Your task to perform on an android device: set default search engine in the chrome app Image 0: 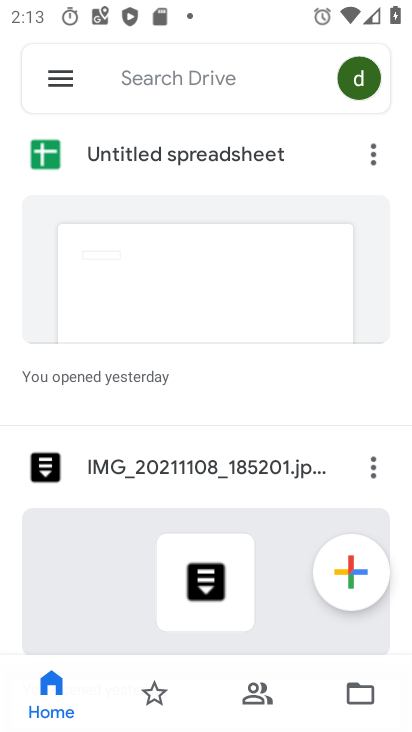
Step 0: press home button
Your task to perform on an android device: set default search engine in the chrome app Image 1: 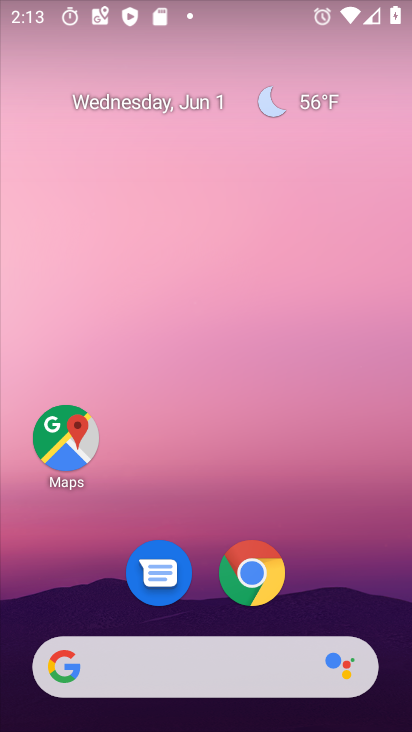
Step 1: drag from (318, 545) to (323, 2)
Your task to perform on an android device: set default search engine in the chrome app Image 2: 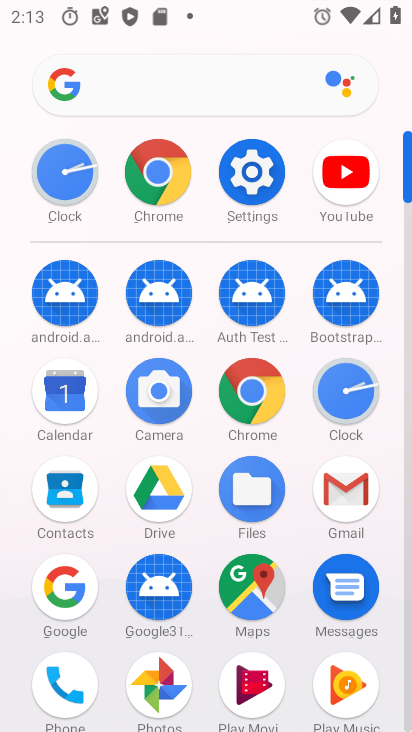
Step 2: click (158, 188)
Your task to perform on an android device: set default search engine in the chrome app Image 3: 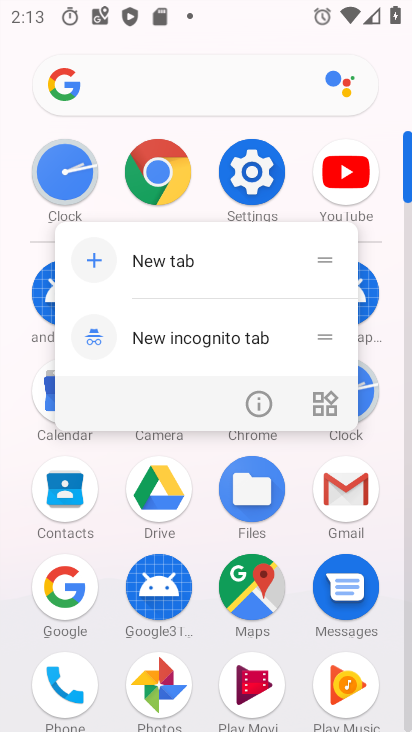
Step 3: click (163, 179)
Your task to perform on an android device: set default search engine in the chrome app Image 4: 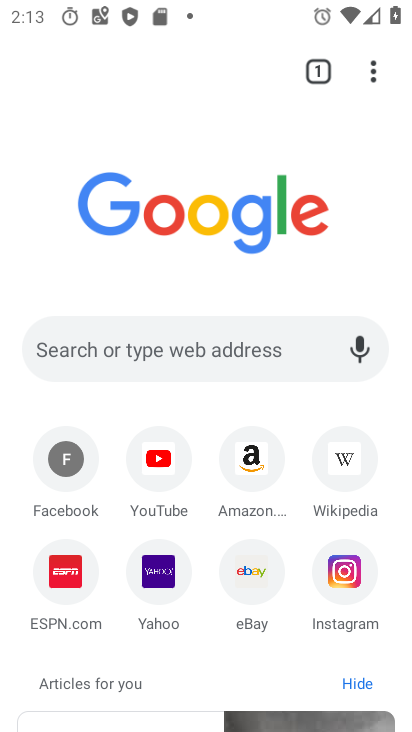
Step 4: drag from (372, 74) to (143, 610)
Your task to perform on an android device: set default search engine in the chrome app Image 5: 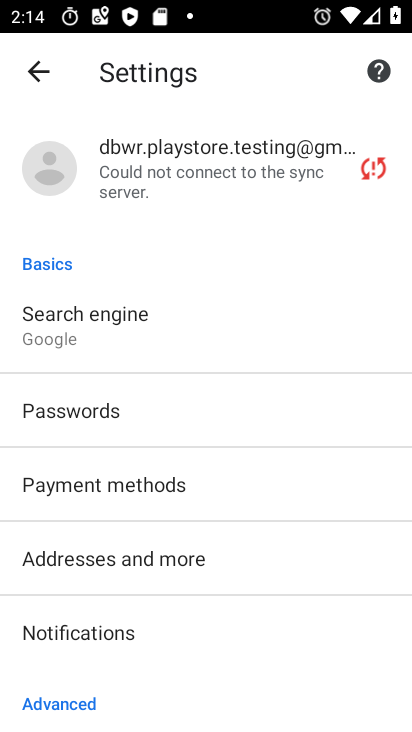
Step 5: click (108, 338)
Your task to perform on an android device: set default search engine in the chrome app Image 6: 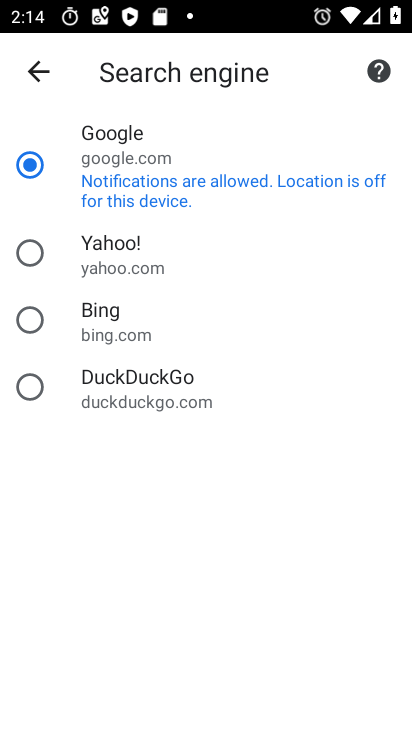
Step 6: task complete